Your task to perform on an android device: View the shopping cart on newegg.com. Add "bose soundsport free" to the cart on newegg.com Image 0: 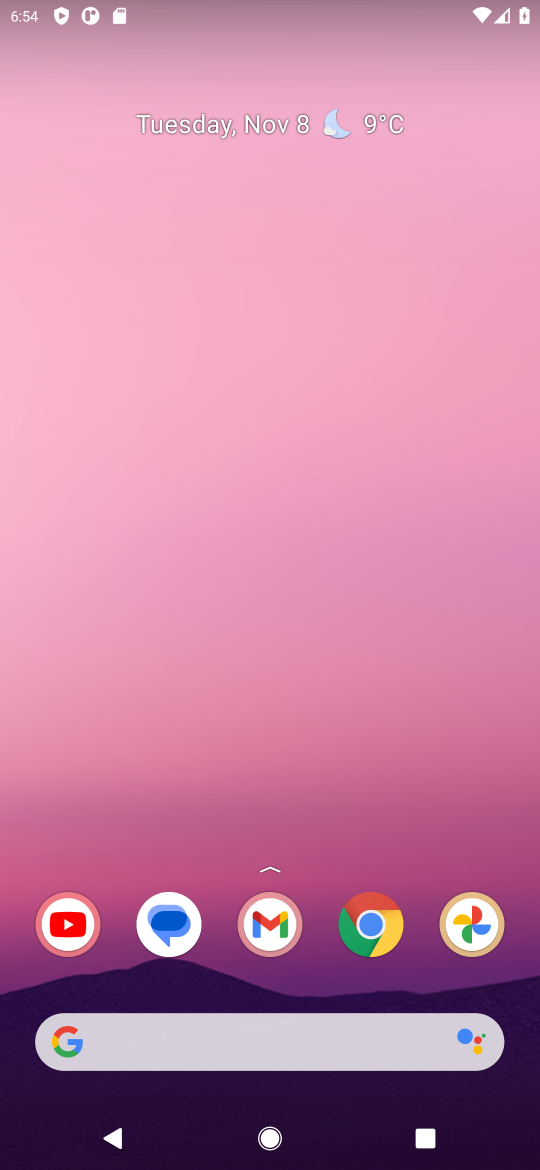
Step 0: click (214, 1060)
Your task to perform on an android device: View the shopping cart on newegg.com. Add "bose soundsport free" to the cart on newegg.com Image 1: 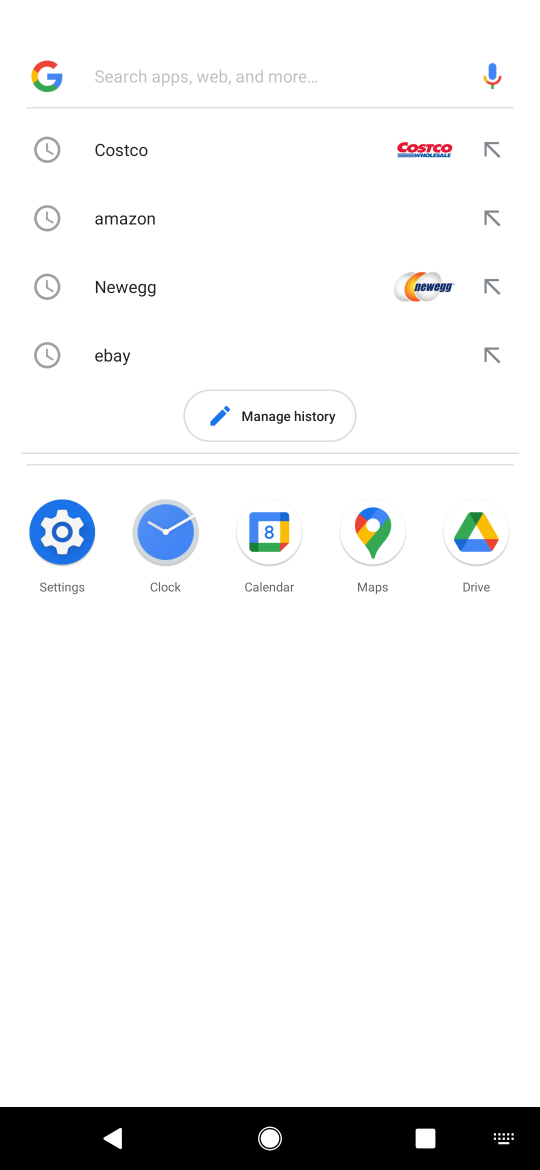
Step 1: click (333, 277)
Your task to perform on an android device: View the shopping cart on newegg.com. Add "bose soundsport free" to the cart on newegg.com Image 2: 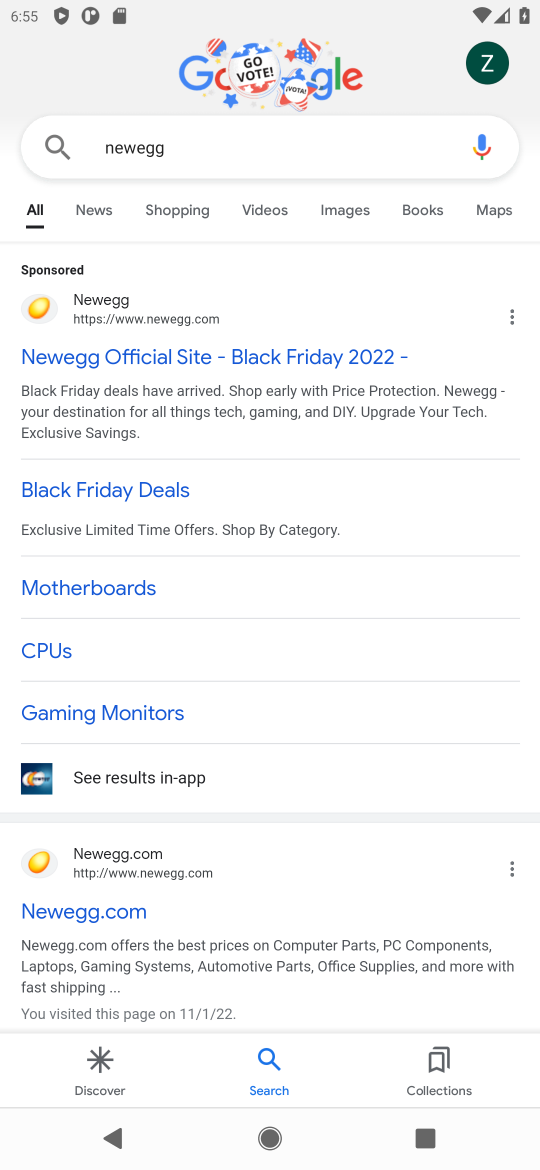
Step 2: click (85, 297)
Your task to perform on an android device: View the shopping cart on newegg.com. Add "bose soundsport free" to the cart on newegg.com Image 3: 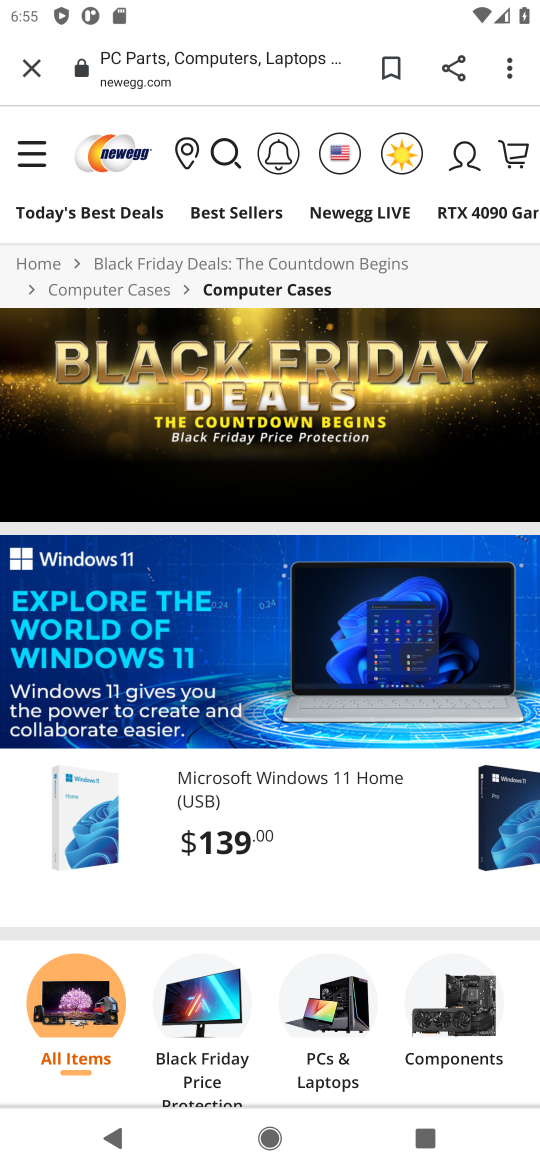
Step 3: click (229, 143)
Your task to perform on an android device: View the shopping cart on newegg.com. Add "bose soundsport free" to the cart on newegg.com Image 4: 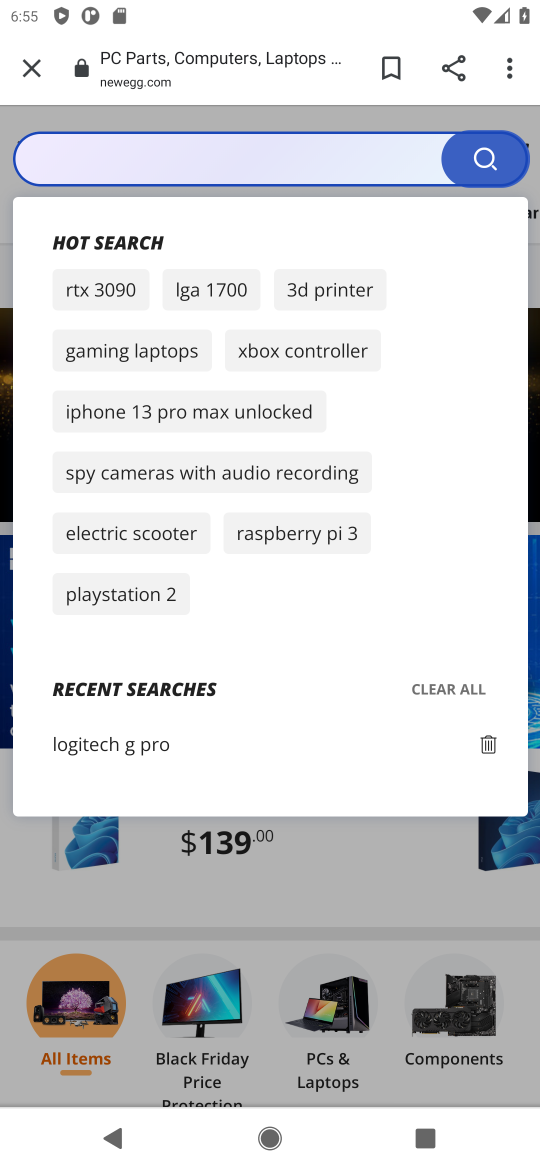
Step 4: click (207, 155)
Your task to perform on an android device: View the shopping cart on newegg.com. Add "bose soundsport free" to the cart on newegg.com Image 5: 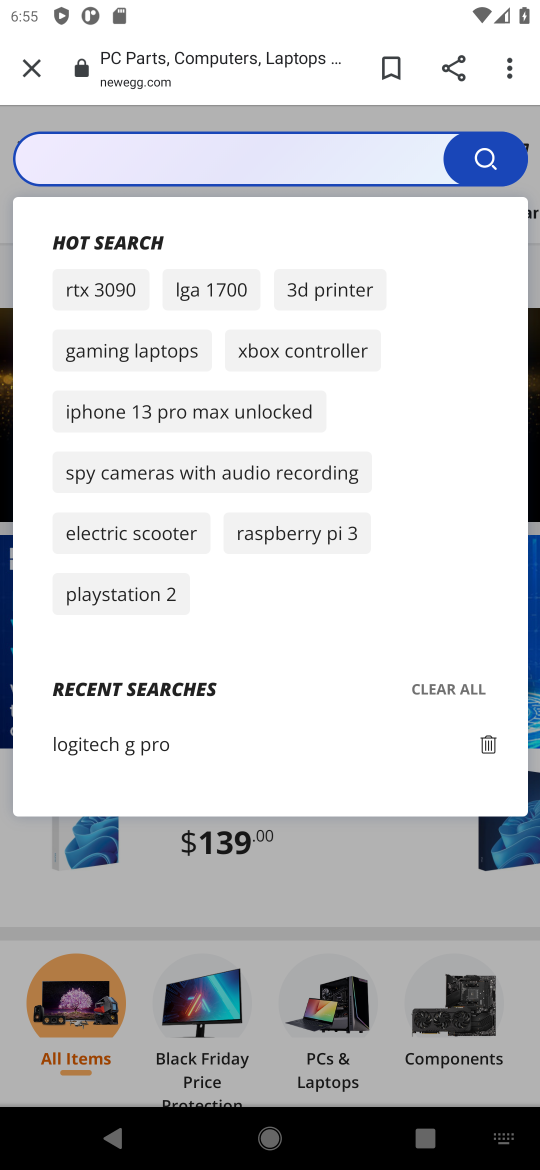
Step 5: type "bose soundsport free"
Your task to perform on an android device: View the shopping cart on newegg.com. Add "bose soundsport free" to the cart on newegg.com Image 6: 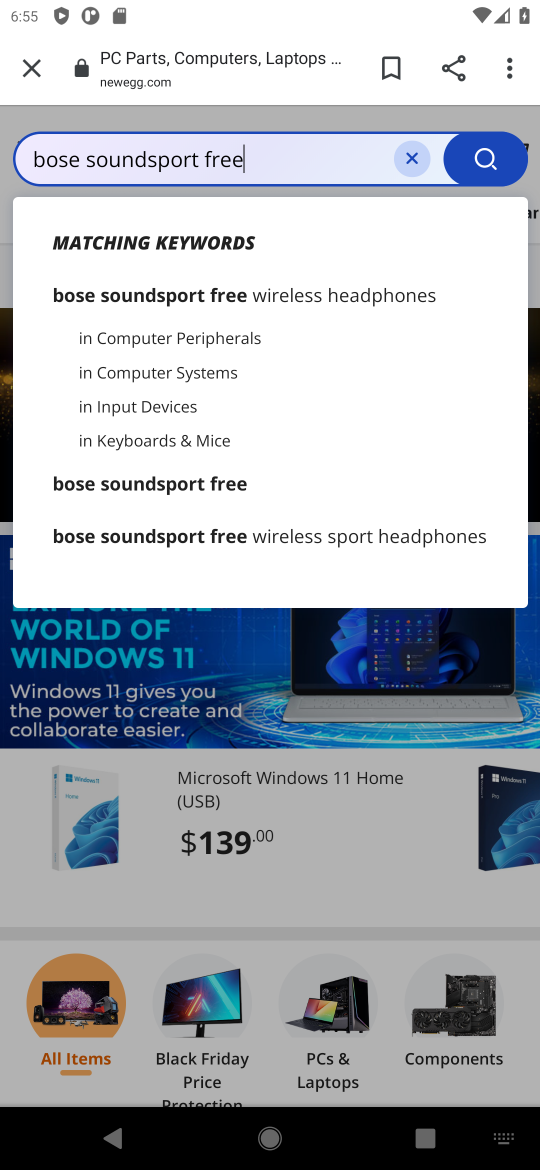
Step 6: click (197, 470)
Your task to perform on an android device: View the shopping cart on newegg.com. Add "bose soundsport free" to the cart on newegg.com Image 7: 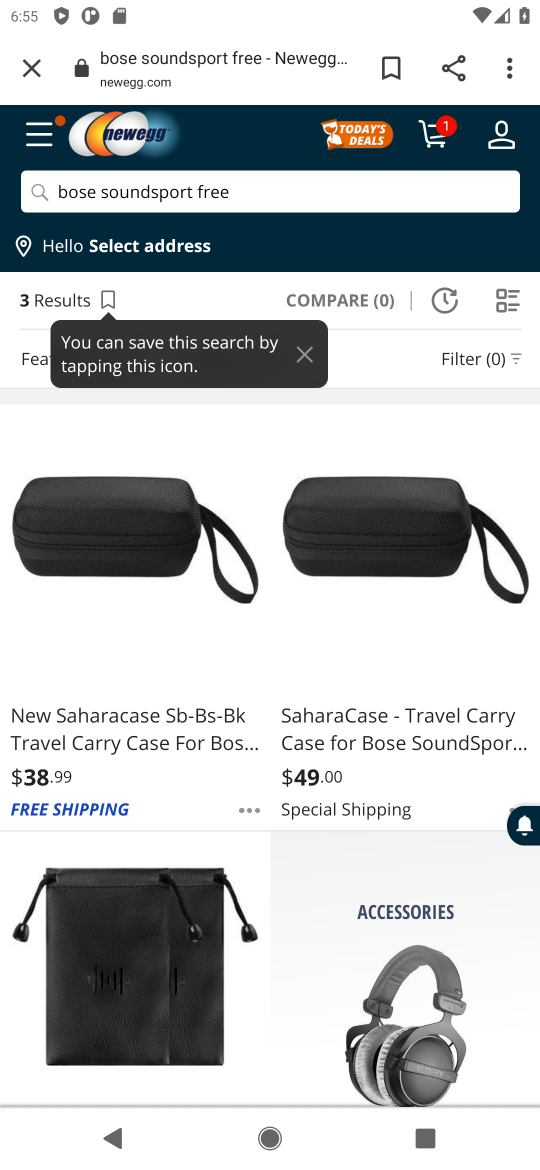
Step 7: click (303, 194)
Your task to perform on an android device: View the shopping cart on newegg.com. Add "bose soundsport free" to the cart on newegg.com Image 8: 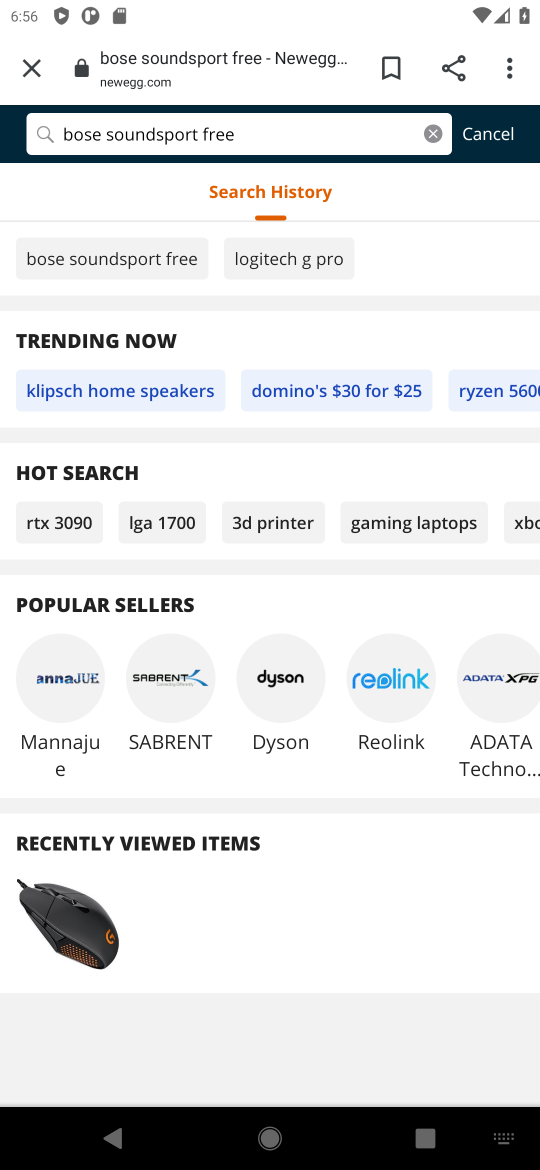
Step 8: click (430, 140)
Your task to perform on an android device: View the shopping cart on newegg.com. Add "bose soundsport free" to the cart on newegg.com Image 9: 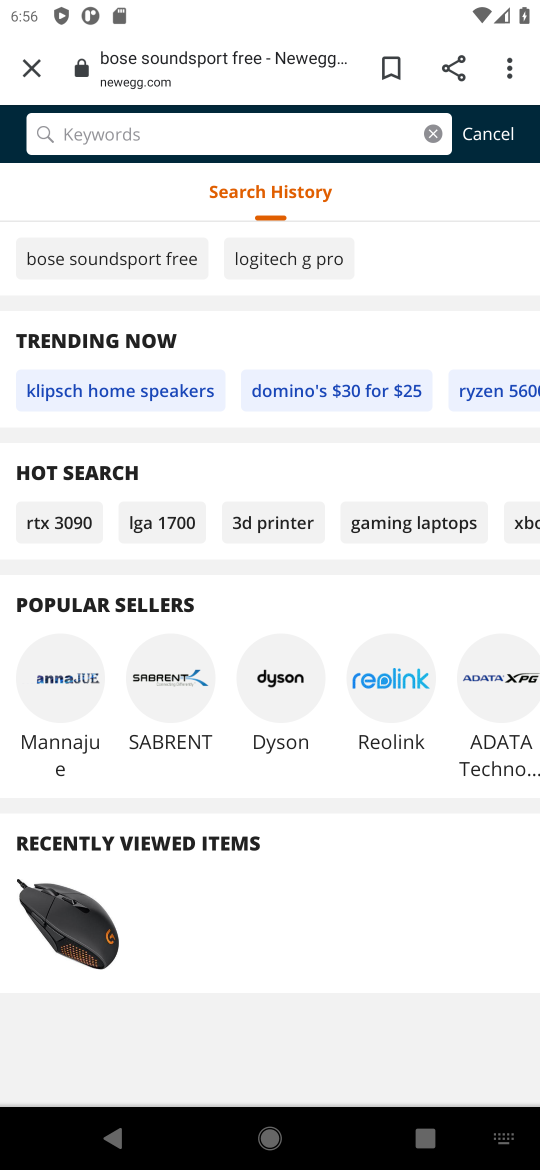
Step 9: type "bose soundsport free"
Your task to perform on an android device: View the shopping cart on newegg.com. Add "bose soundsport free" to the cart on newegg.com Image 10: 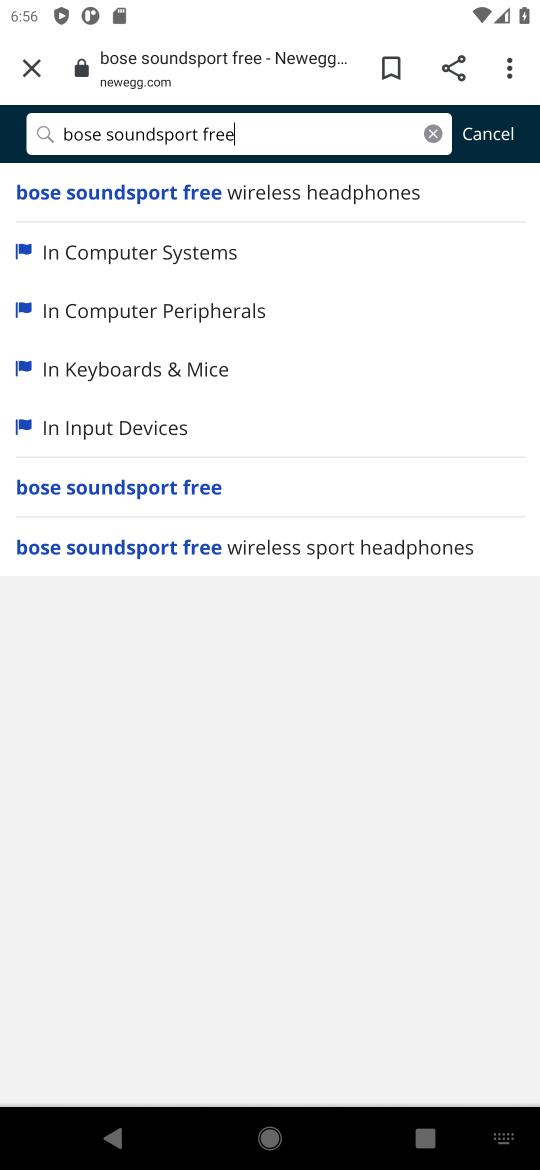
Step 10: click (196, 192)
Your task to perform on an android device: View the shopping cart on newegg.com. Add "bose soundsport free" to the cart on newegg.com Image 11: 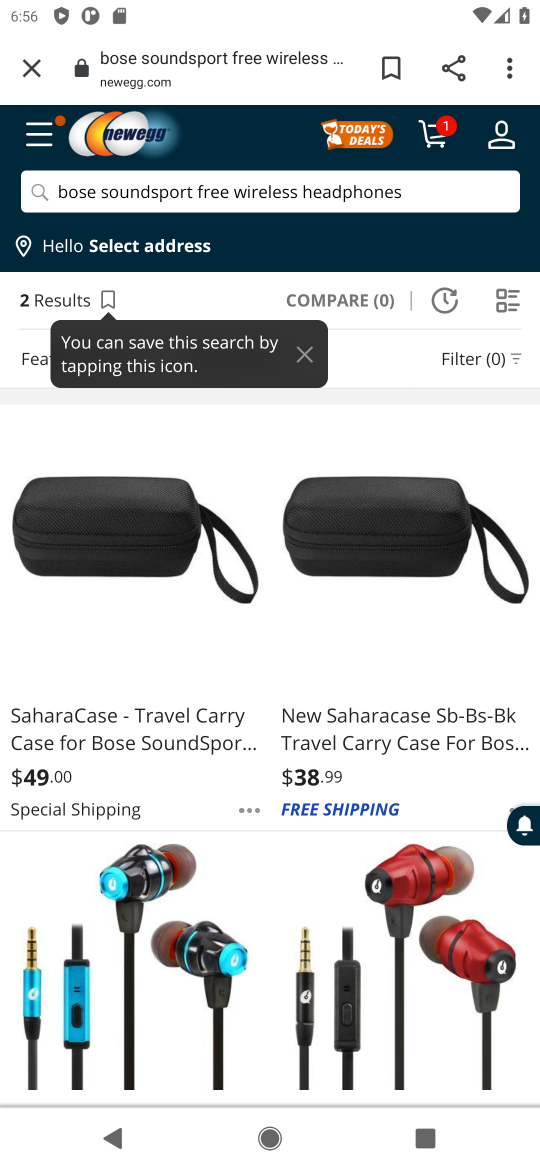
Step 11: click (108, 467)
Your task to perform on an android device: View the shopping cart on newegg.com. Add "bose soundsport free" to the cart on newegg.com Image 12: 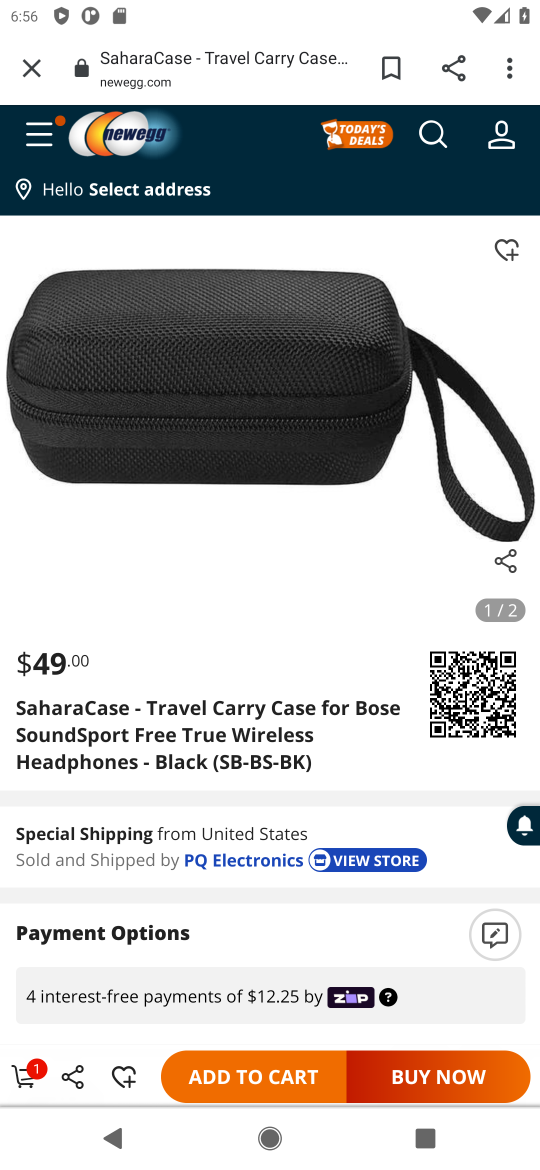
Step 12: click (271, 1075)
Your task to perform on an android device: View the shopping cart on newegg.com. Add "bose soundsport free" to the cart on newegg.com Image 13: 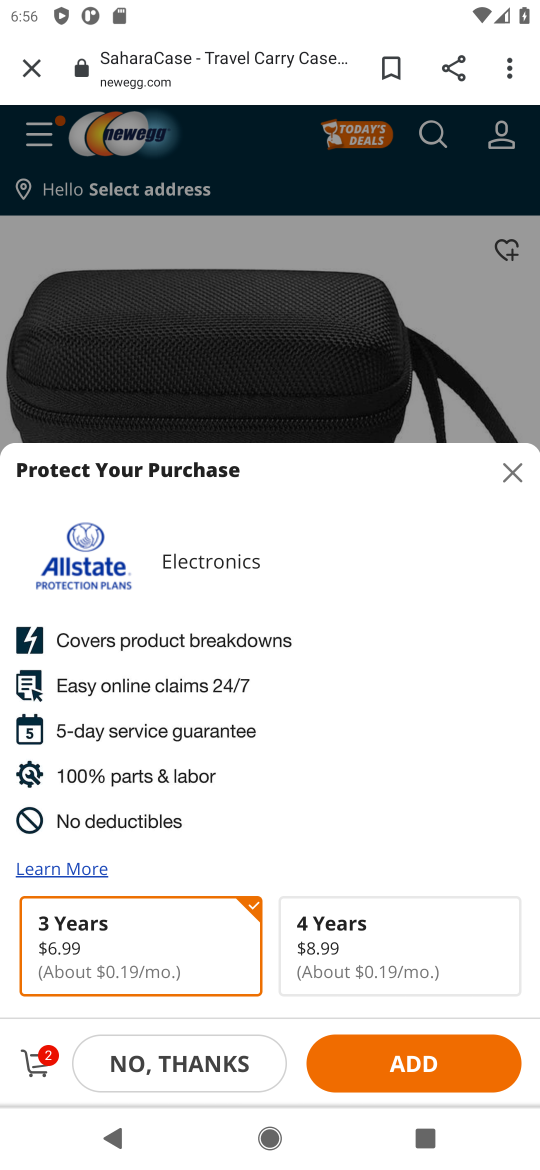
Step 13: click (516, 466)
Your task to perform on an android device: View the shopping cart on newegg.com. Add "bose soundsport free" to the cart on newegg.com Image 14: 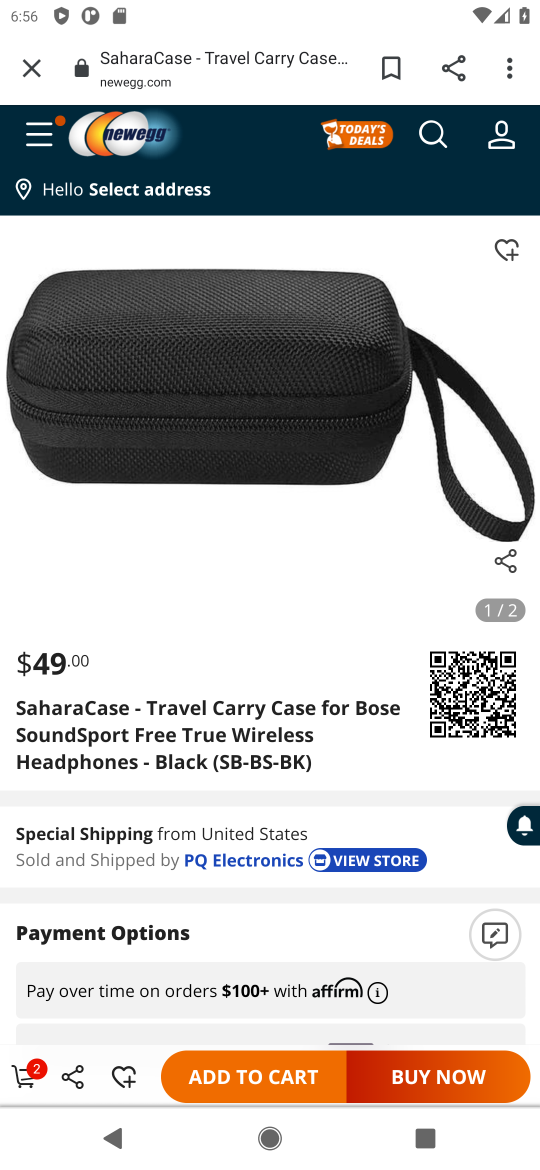
Step 14: task complete